Your task to perform on an android device: Open Chrome and go to settings Image 0: 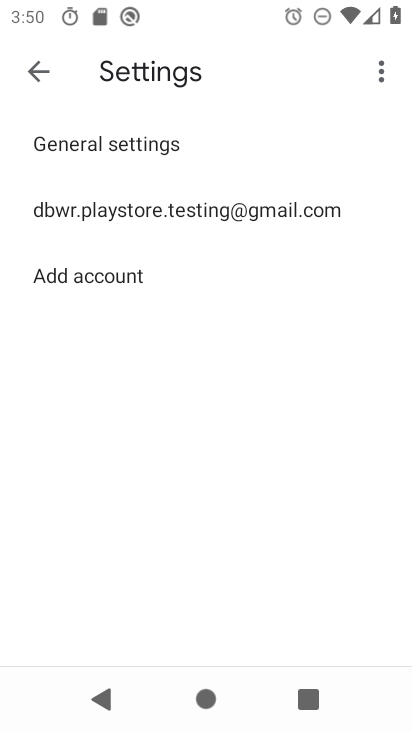
Step 0: press home button
Your task to perform on an android device: Open Chrome and go to settings Image 1: 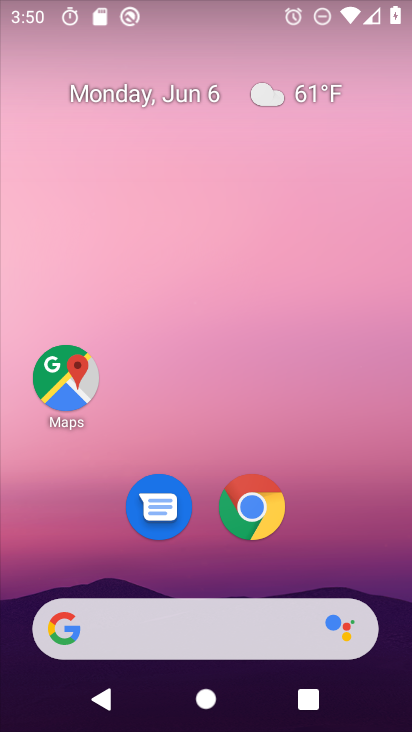
Step 1: click (253, 489)
Your task to perform on an android device: Open Chrome and go to settings Image 2: 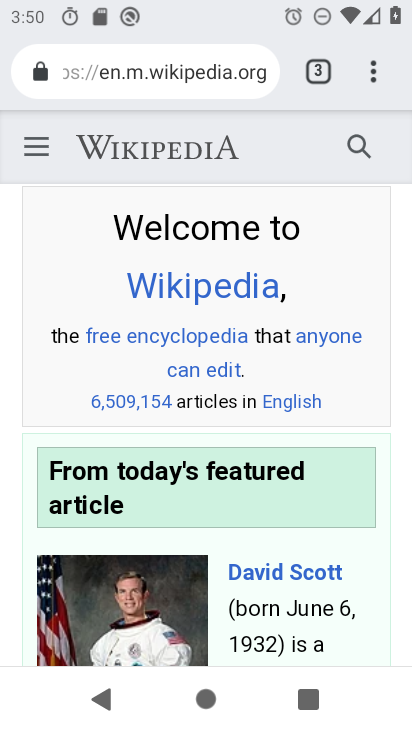
Step 2: click (372, 71)
Your task to perform on an android device: Open Chrome and go to settings Image 3: 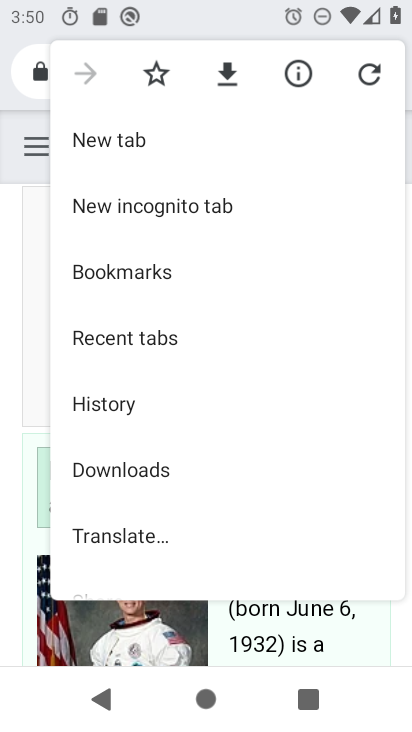
Step 3: drag from (132, 538) to (186, 261)
Your task to perform on an android device: Open Chrome and go to settings Image 4: 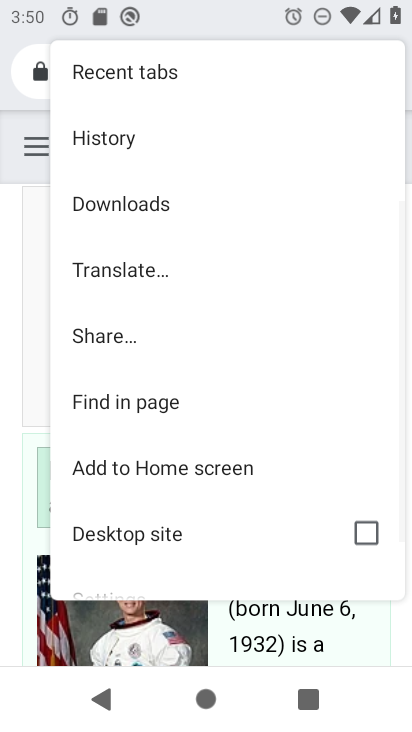
Step 4: drag from (142, 505) to (195, 220)
Your task to perform on an android device: Open Chrome and go to settings Image 5: 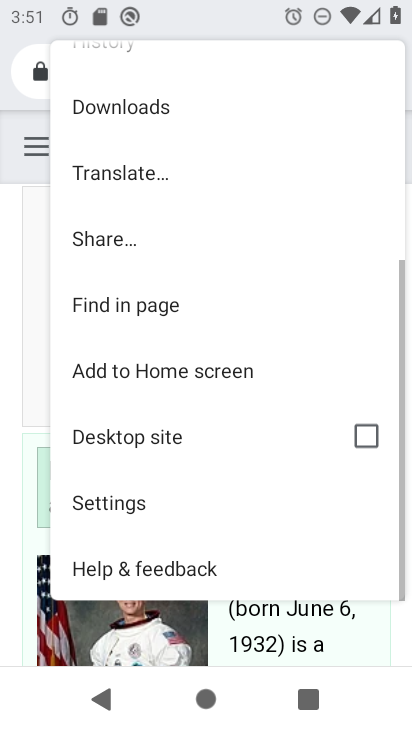
Step 5: click (161, 512)
Your task to perform on an android device: Open Chrome and go to settings Image 6: 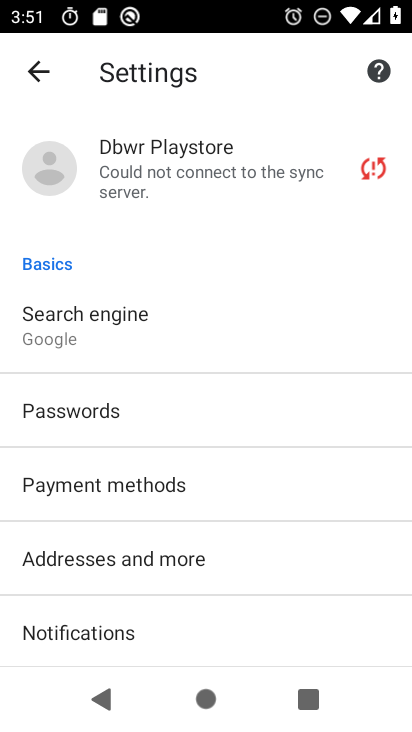
Step 6: task complete